Your task to perform on an android device: uninstall "HBO Max: Stream TV & Movies" Image 0: 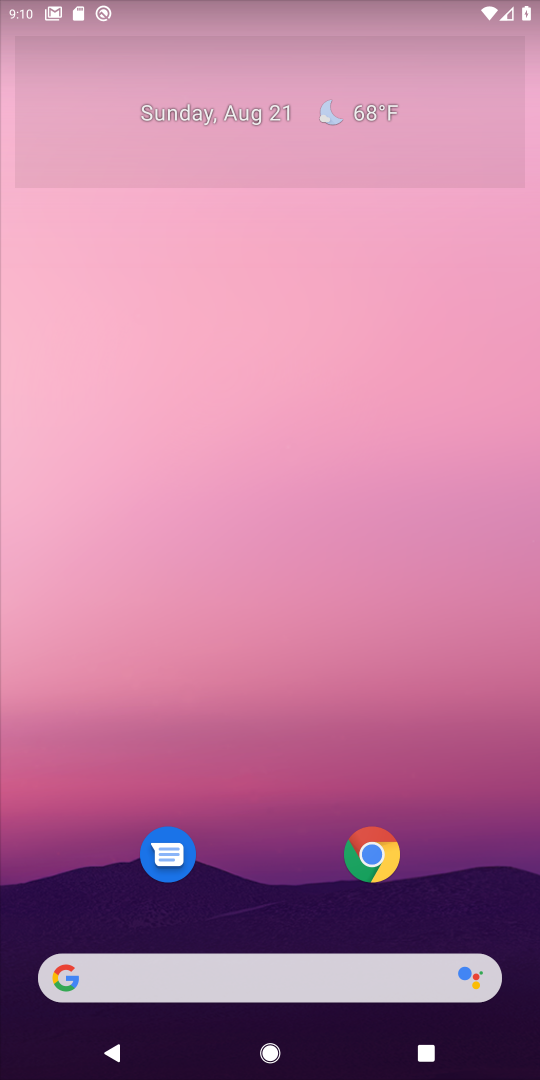
Step 0: drag from (297, 553) to (273, 156)
Your task to perform on an android device: uninstall "HBO Max: Stream TV & Movies" Image 1: 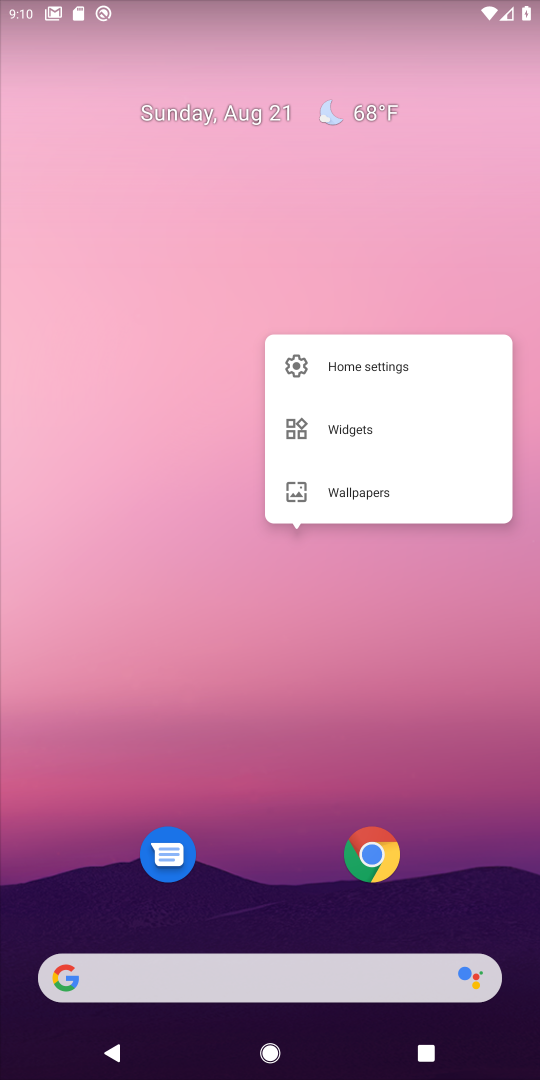
Step 1: click (66, 553)
Your task to perform on an android device: uninstall "HBO Max: Stream TV & Movies" Image 2: 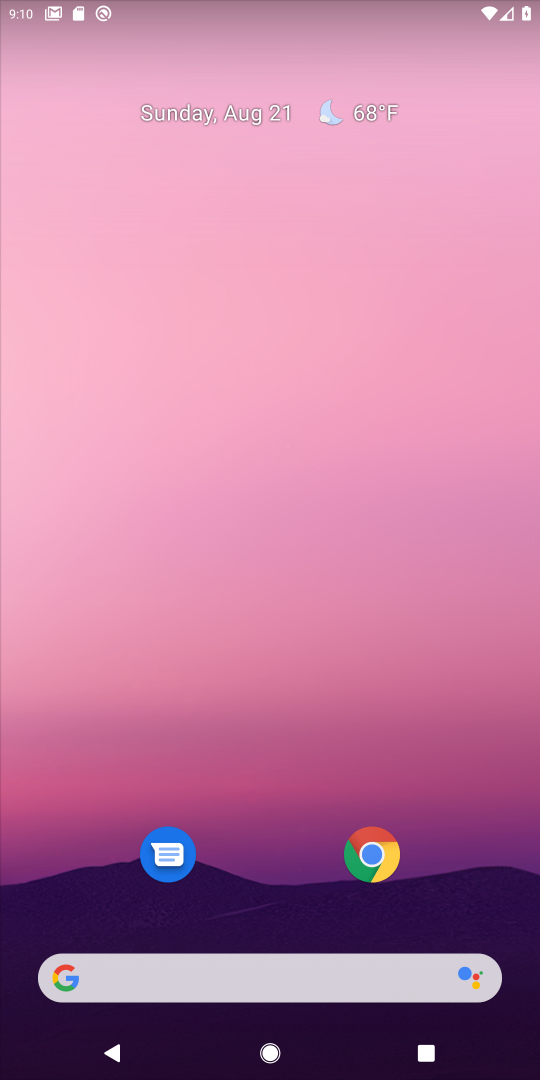
Step 2: drag from (305, 930) to (297, 121)
Your task to perform on an android device: uninstall "HBO Max: Stream TV & Movies" Image 3: 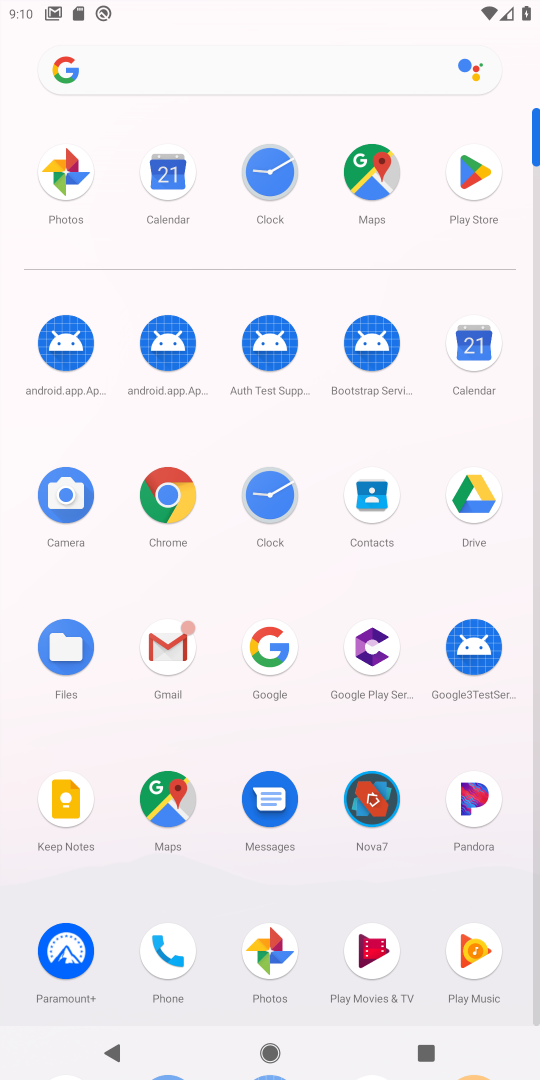
Step 3: click (509, 182)
Your task to perform on an android device: uninstall "HBO Max: Stream TV & Movies" Image 4: 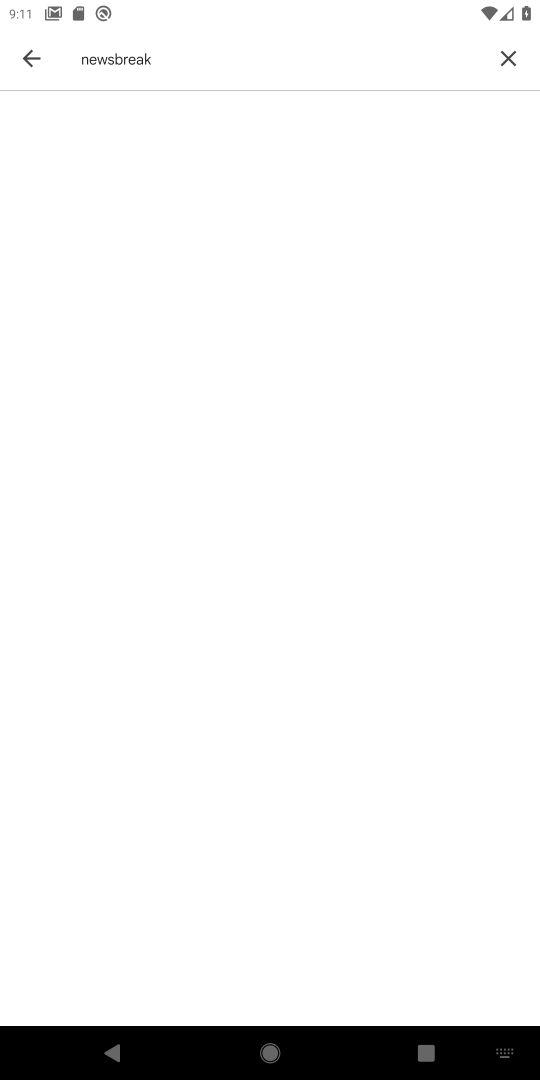
Step 4: task complete